Your task to perform on an android device: turn off wifi Image 0: 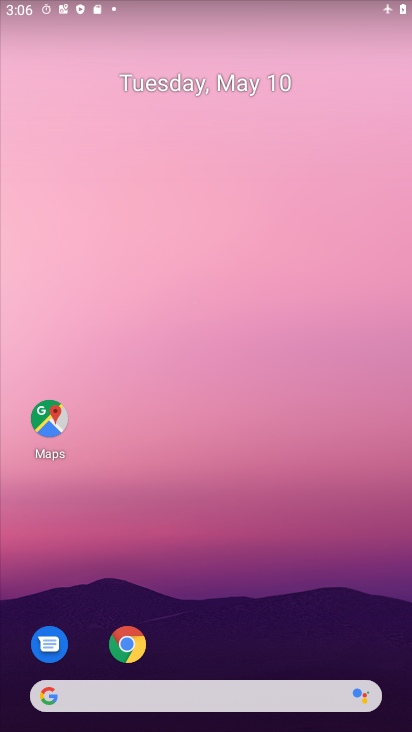
Step 0: drag from (384, 47) to (294, 652)
Your task to perform on an android device: turn off wifi Image 1: 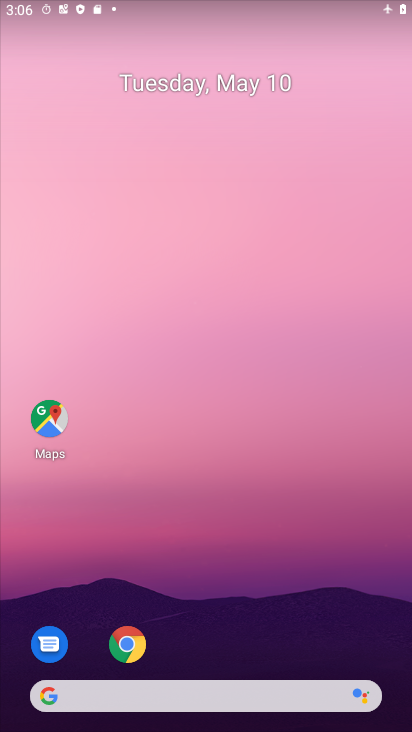
Step 1: task complete